Your task to perform on an android device: Do I have any events tomorrow? Image 0: 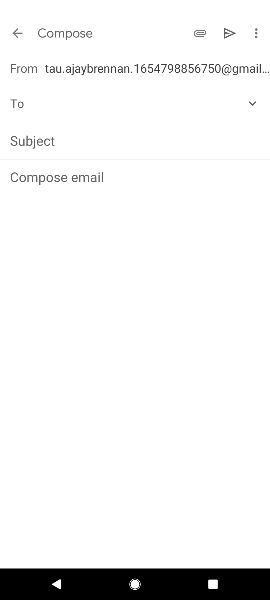
Step 0: click (150, 69)
Your task to perform on an android device: Do I have any events tomorrow? Image 1: 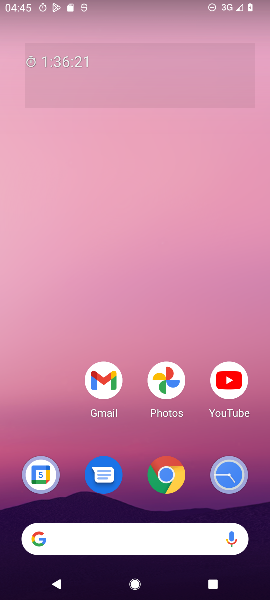
Step 1: press home button
Your task to perform on an android device: Do I have any events tomorrow? Image 2: 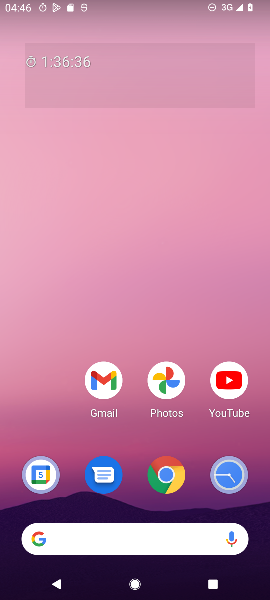
Step 2: drag from (59, 429) to (61, 167)
Your task to perform on an android device: Do I have any events tomorrow? Image 3: 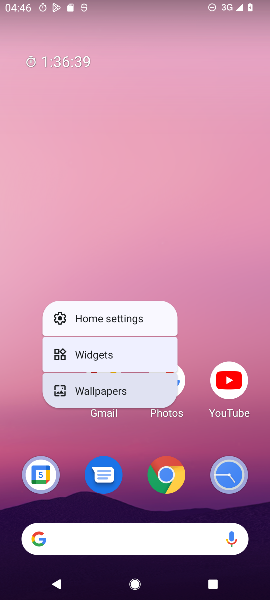
Step 3: click (44, 253)
Your task to perform on an android device: Do I have any events tomorrow? Image 4: 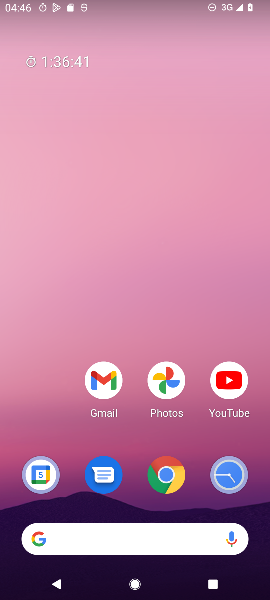
Step 4: drag from (42, 408) to (55, 174)
Your task to perform on an android device: Do I have any events tomorrow? Image 5: 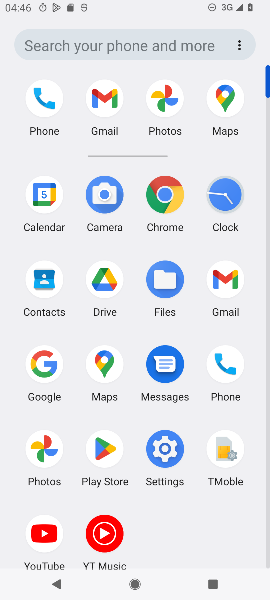
Step 5: click (41, 199)
Your task to perform on an android device: Do I have any events tomorrow? Image 6: 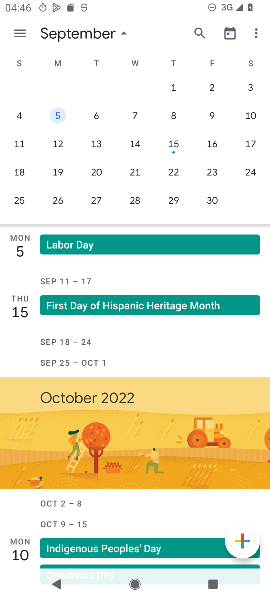
Step 6: task complete